Your task to perform on an android device: Go to battery settings Image 0: 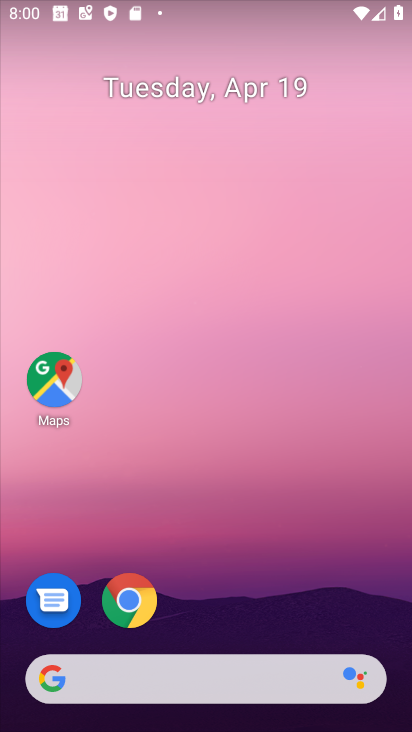
Step 0: drag from (324, 594) to (287, 163)
Your task to perform on an android device: Go to battery settings Image 1: 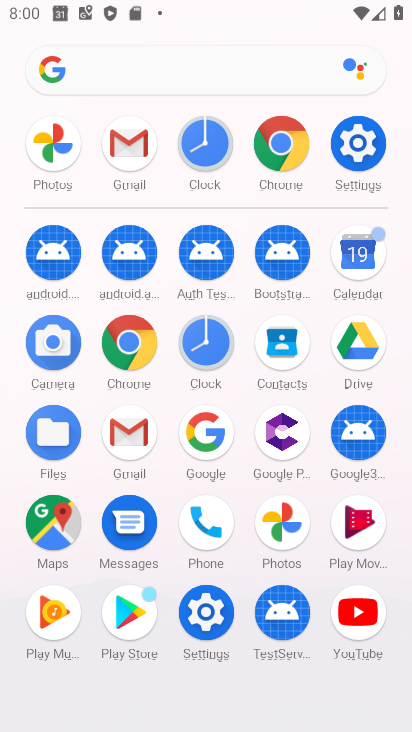
Step 1: click (208, 606)
Your task to perform on an android device: Go to battery settings Image 2: 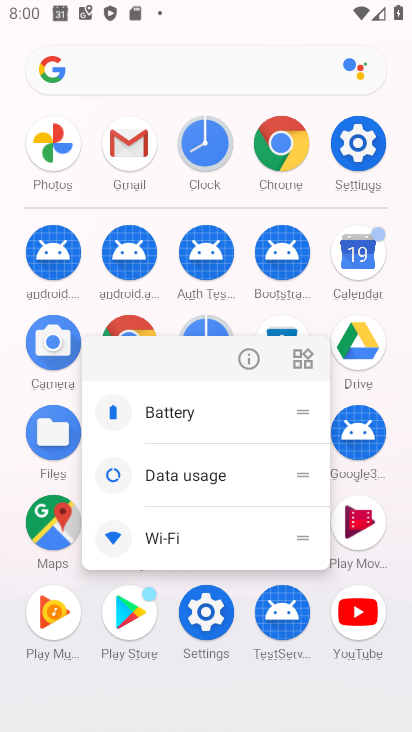
Step 2: click (210, 613)
Your task to perform on an android device: Go to battery settings Image 3: 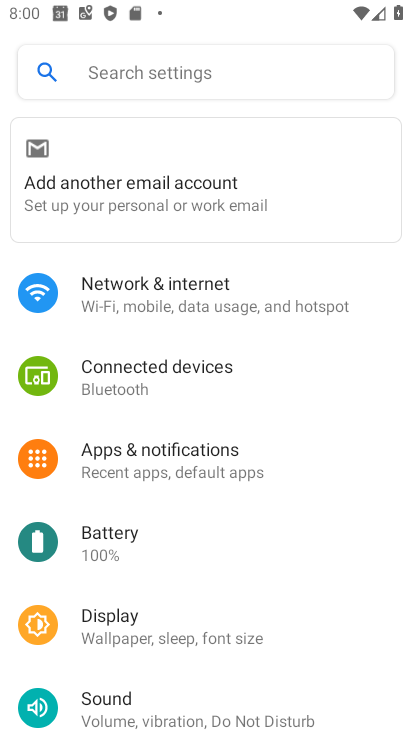
Step 3: click (179, 545)
Your task to perform on an android device: Go to battery settings Image 4: 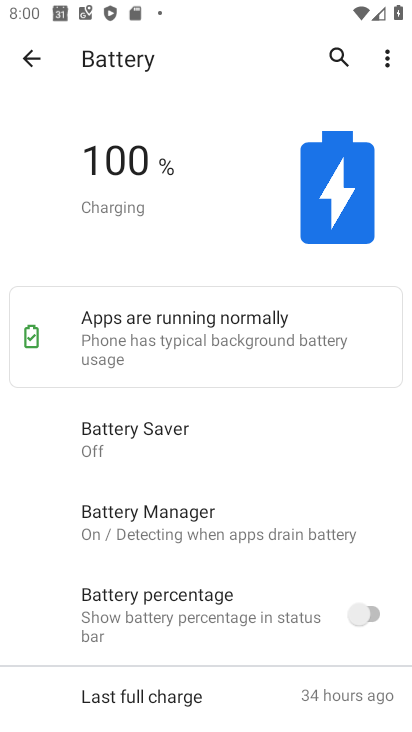
Step 4: task complete